Your task to perform on an android device: Go to ESPN.com Image 0: 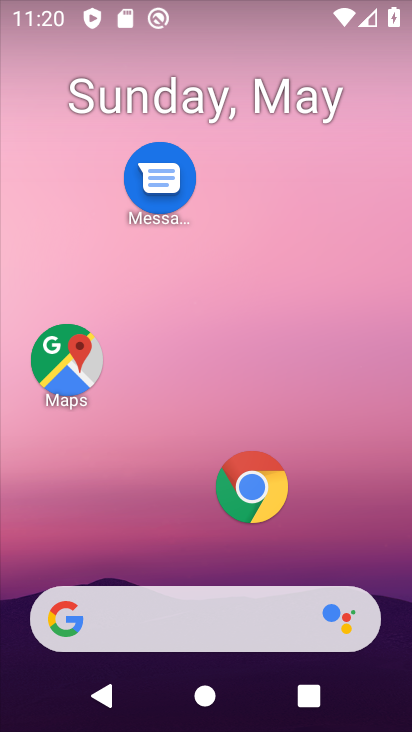
Step 0: click (259, 477)
Your task to perform on an android device: Go to ESPN.com Image 1: 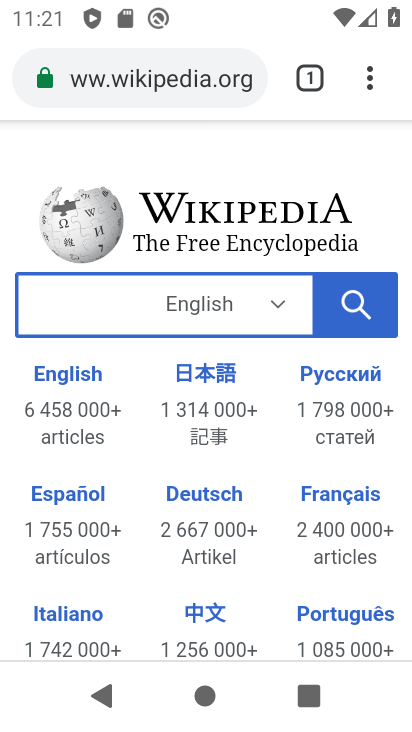
Step 1: click (176, 79)
Your task to perform on an android device: Go to ESPN.com Image 2: 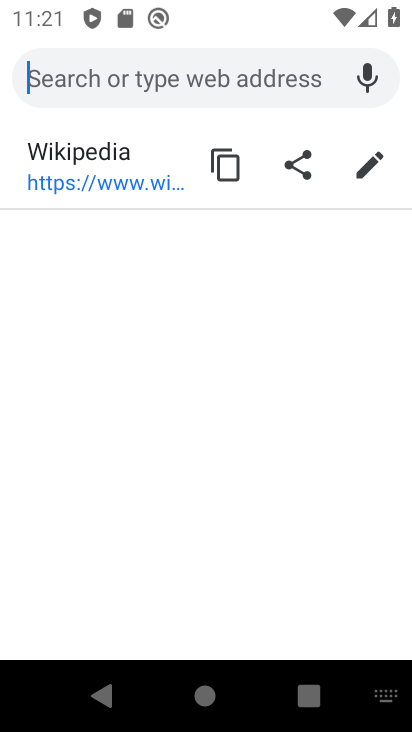
Step 2: type "ESPN.com"
Your task to perform on an android device: Go to ESPN.com Image 3: 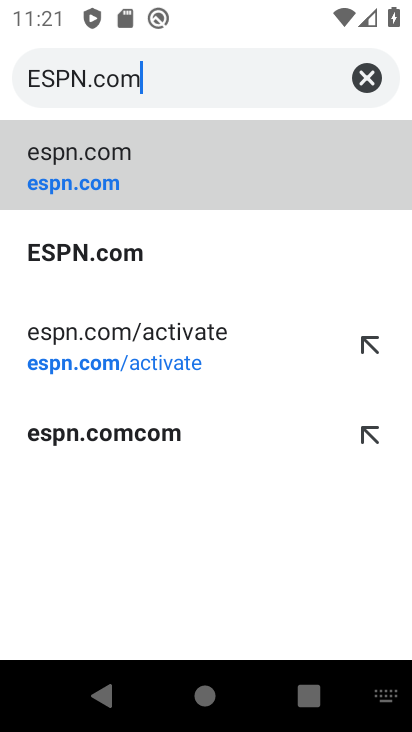
Step 3: click (75, 188)
Your task to perform on an android device: Go to ESPN.com Image 4: 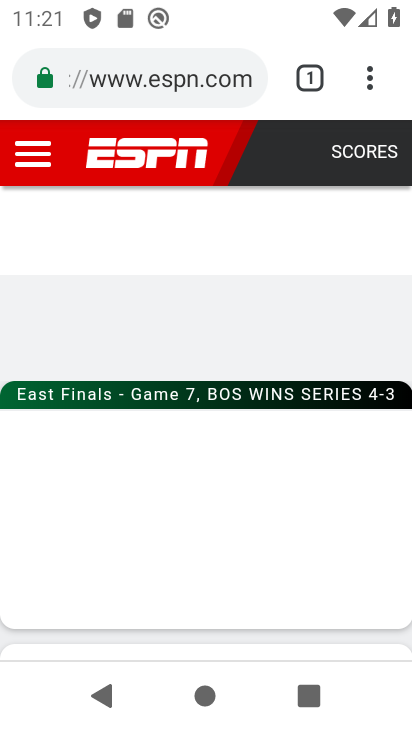
Step 4: task complete